Your task to perform on an android device: turn pop-ups off in chrome Image 0: 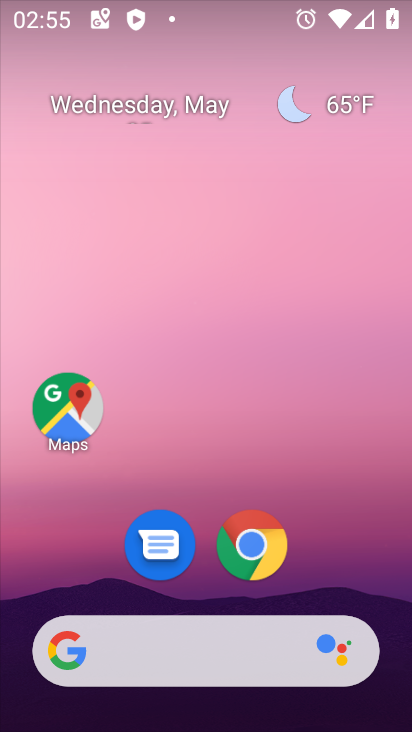
Step 0: click (252, 532)
Your task to perform on an android device: turn pop-ups off in chrome Image 1: 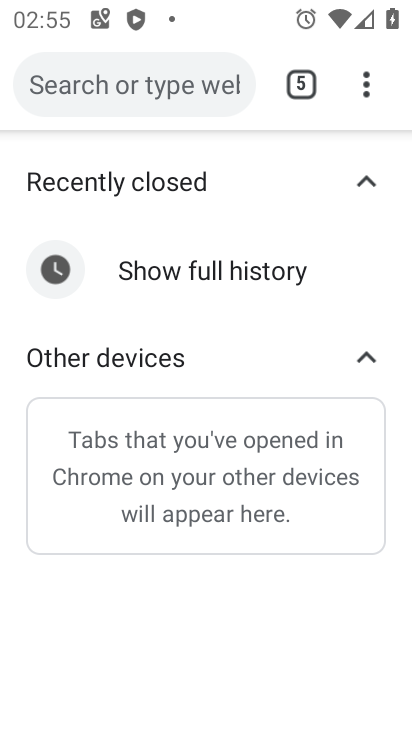
Step 1: click (362, 93)
Your task to perform on an android device: turn pop-ups off in chrome Image 2: 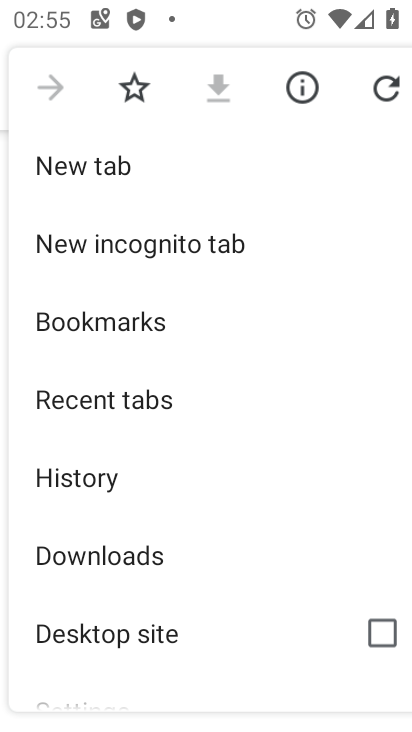
Step 2: drag from (234, 608) to (213, 141)
Your task to perform on an android device: turn pop-ups off in chrome Image 3: 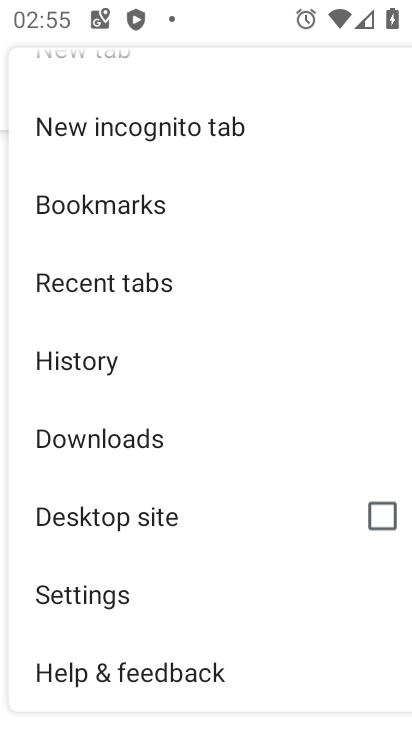
Step 3: click (135, 589)
Your task to perform on an android device: turn pop-ups off in chrome Image 4: 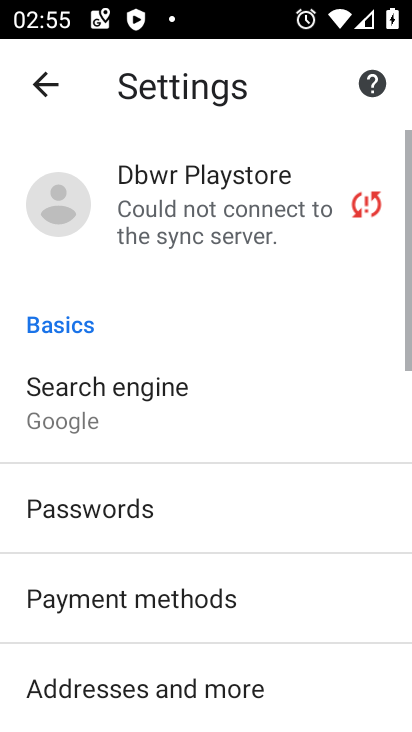
Step 4: drag from (270, 465) to (254, 53)
Your task to perform on an android device: turn pop-ups off in chrome Image 5: 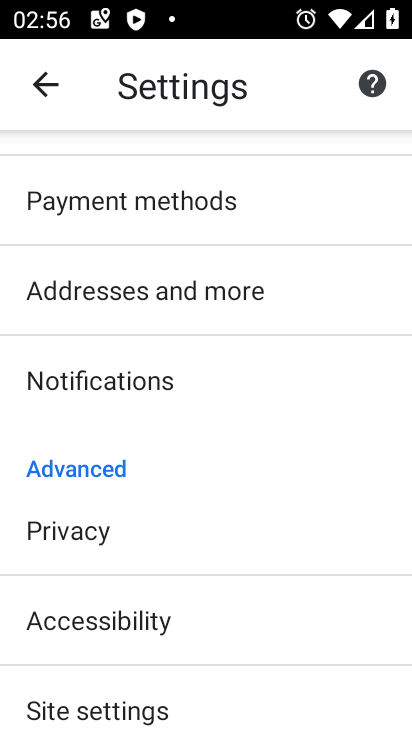
Step 5: click (159, 703)
Your task to perform on an android device: turn pop-ups off in chrome Image 6: 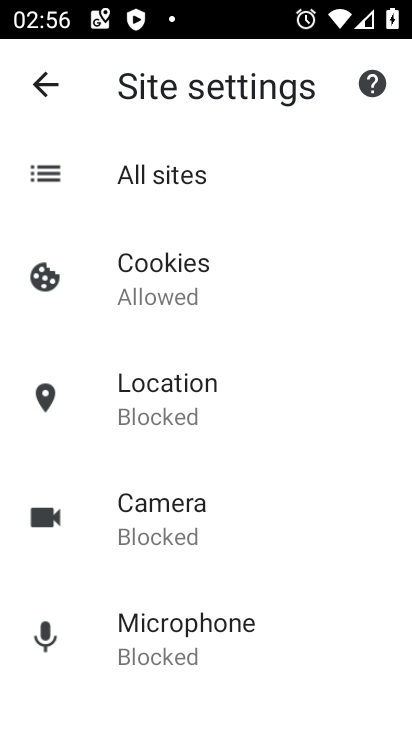
Step 6: drag from (265, 588) to (237, 153)
Your task to perform on an android device: turn pop-ups off in chrome Image 7: 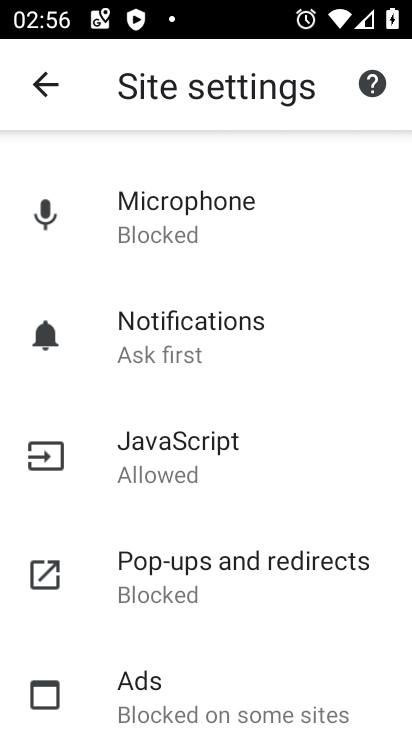
Step 7: click (244, 577)
Your task to perform on an android device: turn pop-ups off in chrome Image 8: 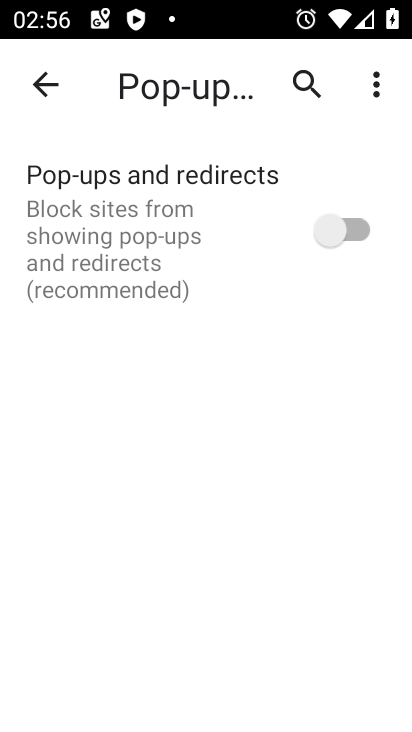
Step 8: task complete